Your task to perform on an android device: clear all cookies in the chrome app Image 0: 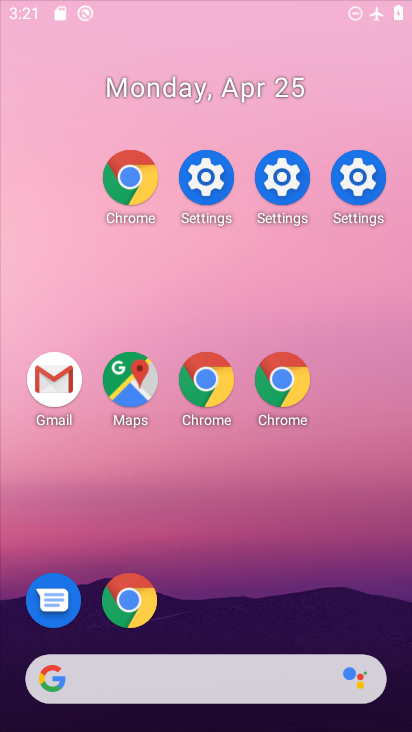
Step 0: click (171, 168)
Your task to perform on an android device: clear all cookies in the chrome app Image 1: 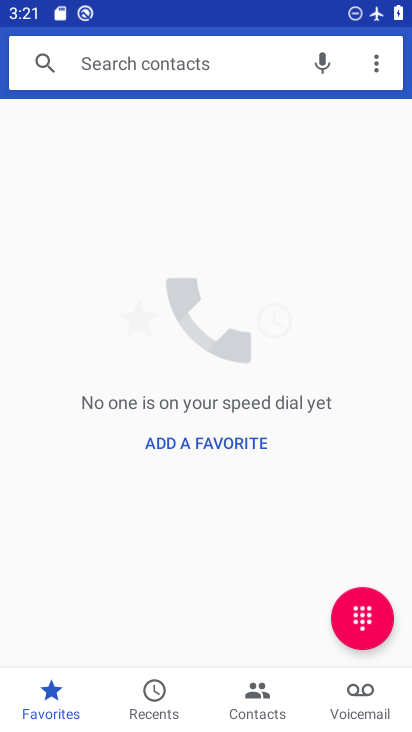
Step 1: press home button
Your task to perform on an android device: clear all cookies in the chrome app Image 2: 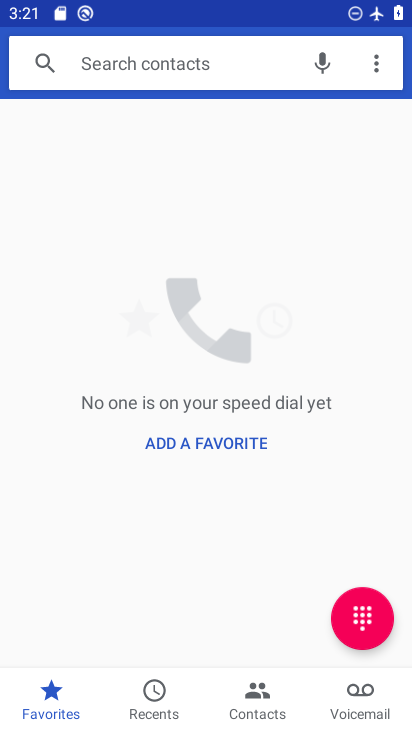
Step 2: press home button
Your task to perform on an android device: clear all cookies in the chrome app Image 3: 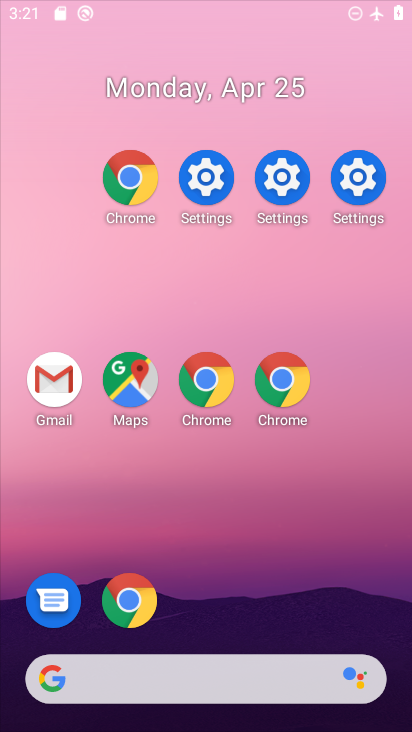
Step 3: press home button
Your task to perform on an android device: clear all cookies in the chrome app Image 4: 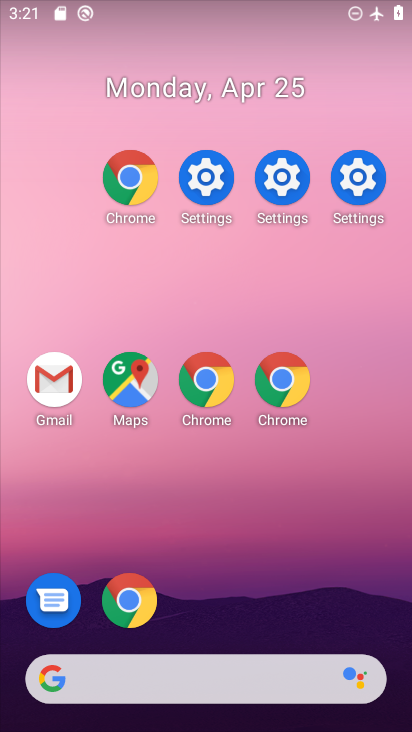
Step 4: drag from (218, 574) to (124, 176)
Your task to perform on an android device: clear all cookies in the chrome app Image 5: 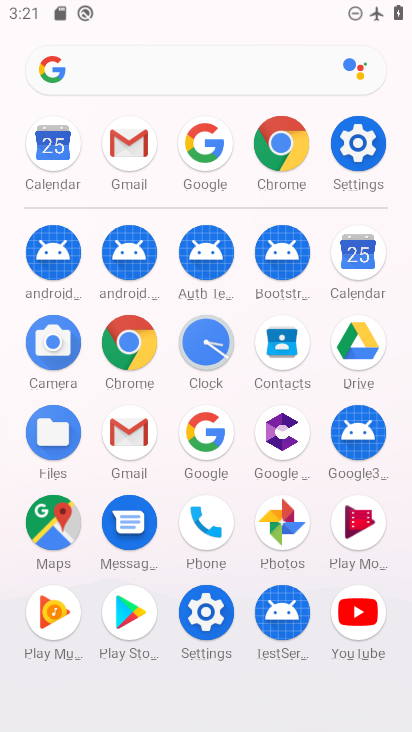
Step 5: click (282, 133)
Your task to perform on an android device: clear all cookies in the chrome app Image 6: 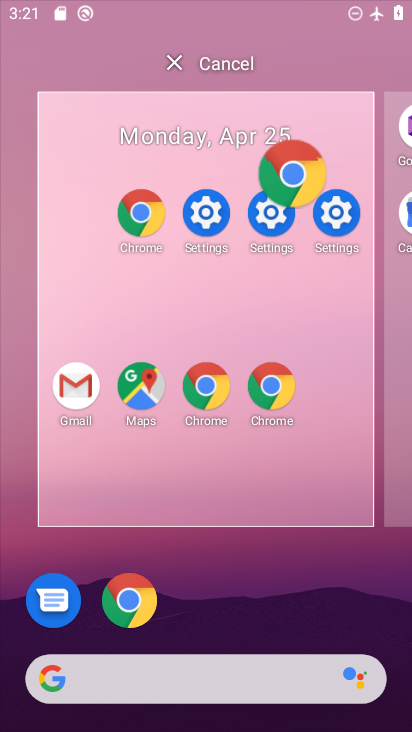
Step 6: click (290, 149)
Your task to perform on an android device: clear all cookies in the chrome app Image 7: 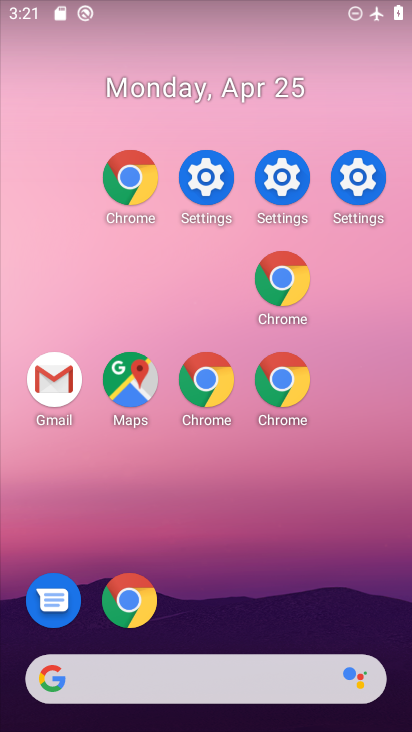
Step 7: click (289, 390)
Your task to perform on an android device: clear all cookies in the chrome app Image 8: 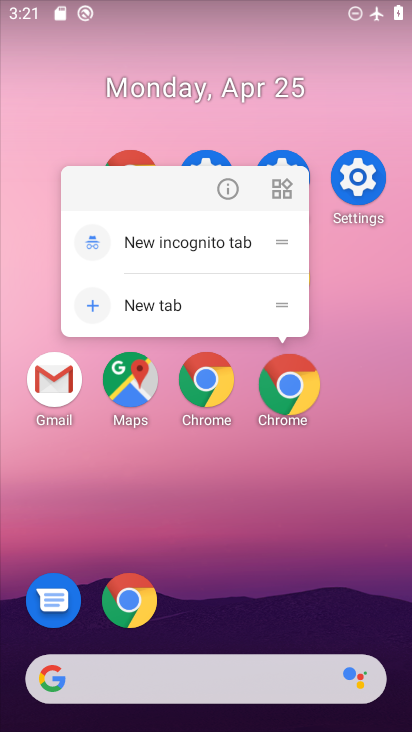
Step 8: drag from (299, 393) to (282, 332)
Your task to perform on an android device: clear all cookies in the chrome app Image 9: 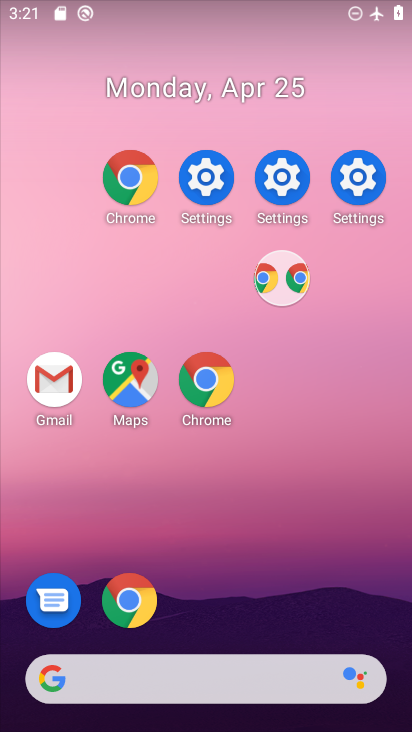
Step 9: click (210, 379)
Your task to perform on an android device: clear all cookies in the chrome app Image 10: 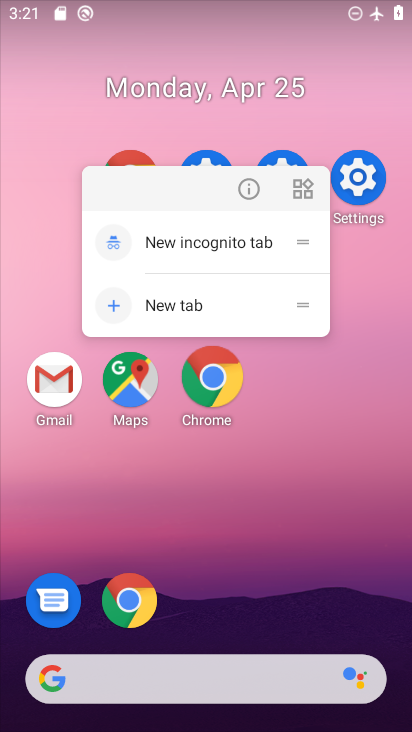
Step 10: click (199, 377)
Your task to perform on an android device: clear all cookies in the chrome app Image 11: 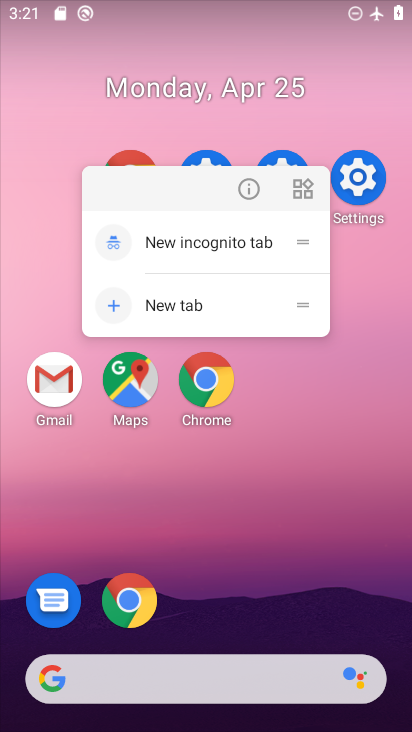
Step 11: click (213, 366)
Your task to perform on an android device: clear all cookies in the chrome app Image 12: 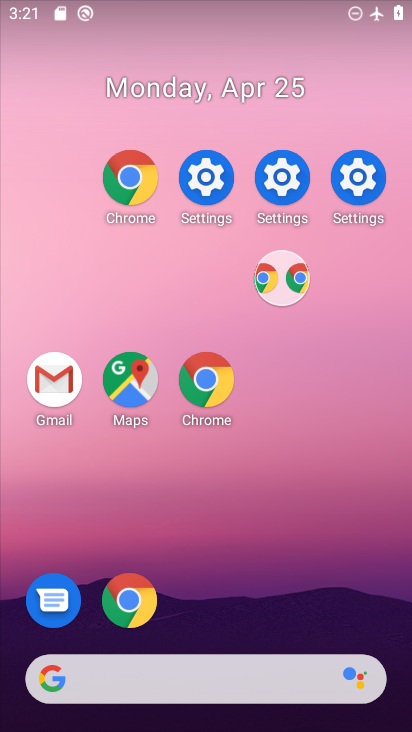
Step 12: click (199, 381)
Your task to perform on an android device: clear all cookies in the chrome app Image 13: 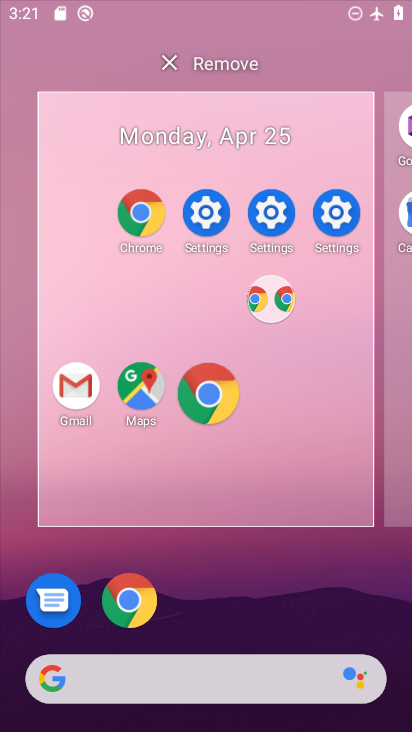
Step 13: click (203, 393)
Your task to perform on an android device: clear all cookies in the chrome app Image 14: 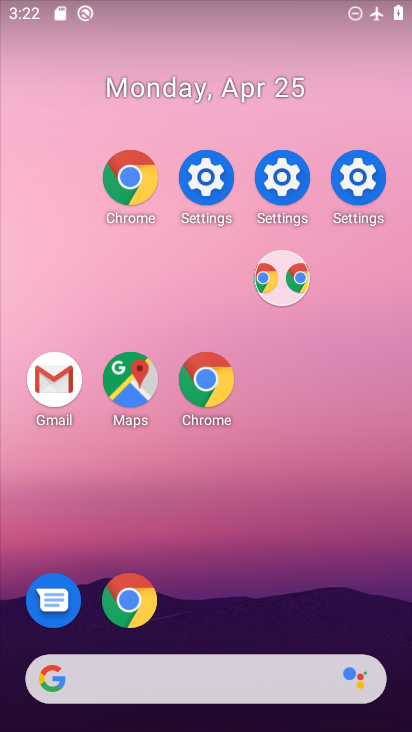
Step 14: click (213, 395)
Your task to perform on an android device: clear all cookies in the chrome app Image 15: 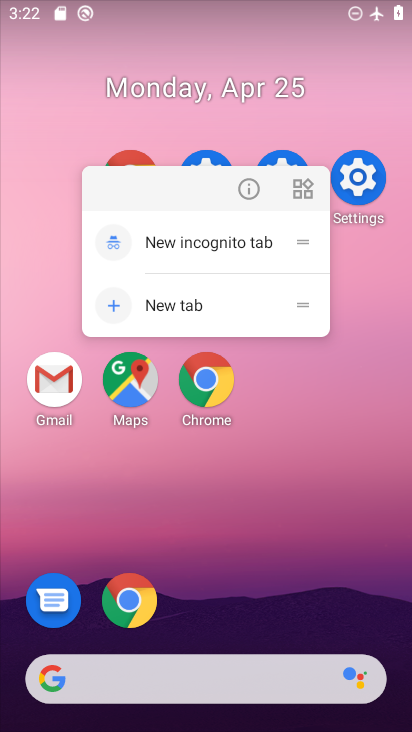
Step 15: drag from (307, 580) to (247, 25)
Your task to perform on an android device: clear all cookies in the chrome app Image 16: 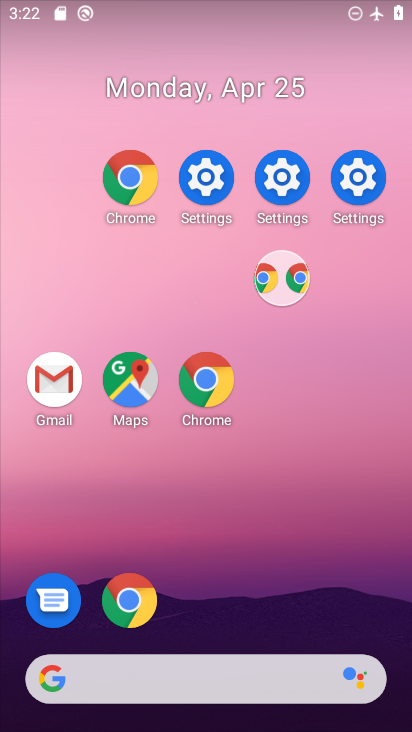
Step 16: drag from (243, 533) to (168, 32)
Your task to perform on an android device: clear all cookies in the chrome app Image 17: 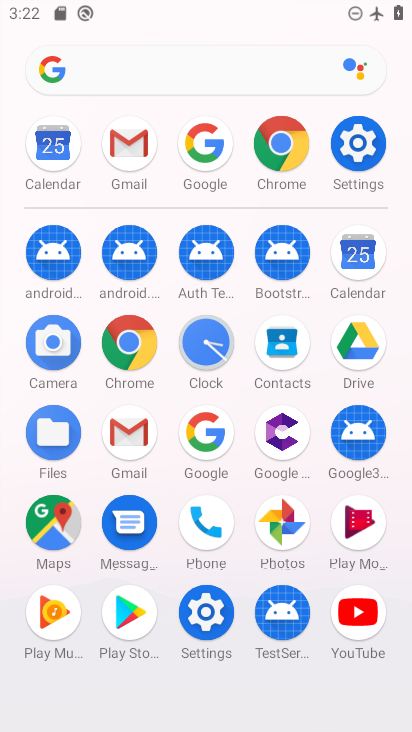
Step 17: click (277, 144)
Your task to perform on an android device: clear all cookies in the chrome app Image 18: 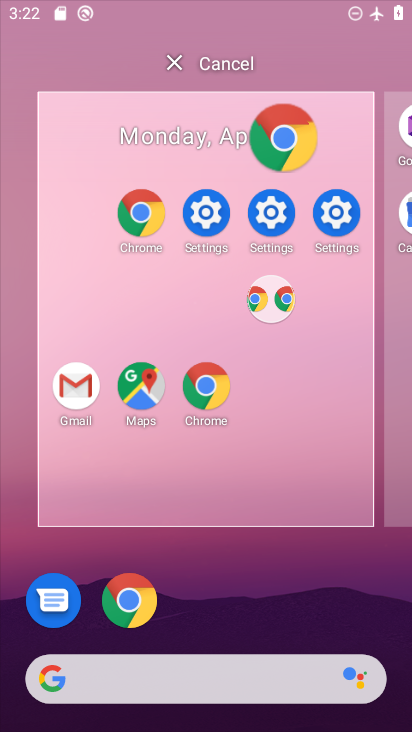
Step 18: click (276, 134)
Your task to perform on an android device: clear all cookies in the chrome app Image 19: 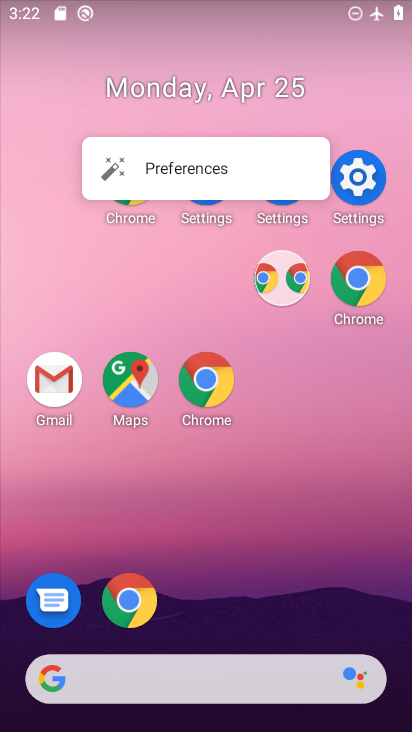
Step 19: drag from (201, 563) to (110, 13)
Your task to perform on an android device: clear all cookies in the chrome app Image 20: 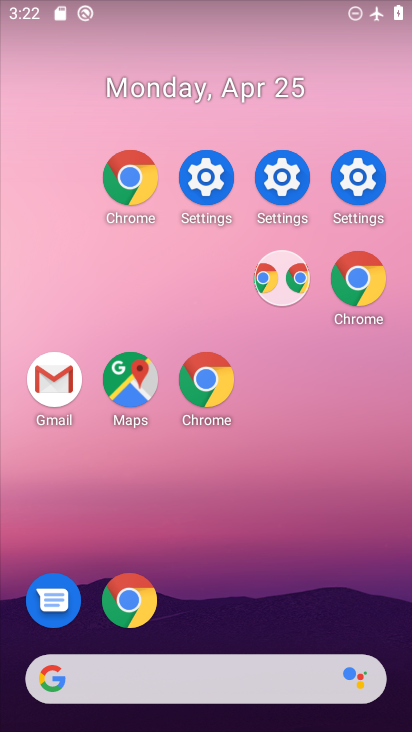
Step 20: drag from (140, 216) to (115, 0)
Your task to perform on an android device: clear all cookies in the chrome app Image 21: 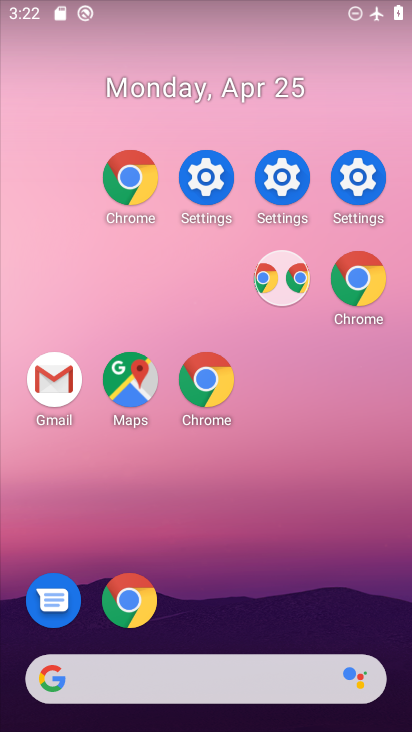
Step 21: drag from (264, 620) to (124, 11)
Your task to perform on an android device: clear all cookies in the chrome app Image 22: 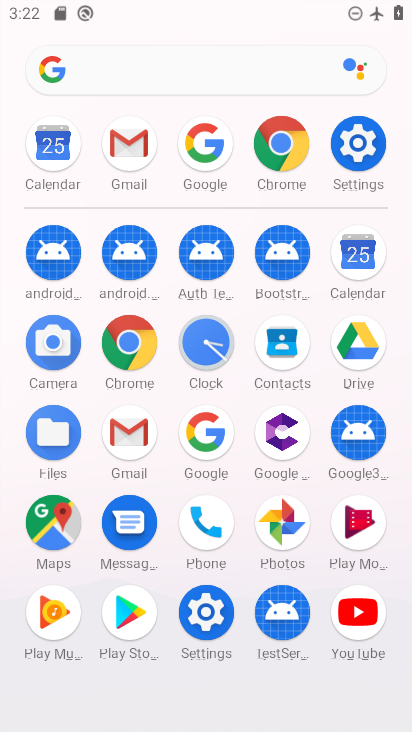
Step 22: click (125, 338)
Your task to perform on an android device: clear all cookies in the chrome app Image 23: 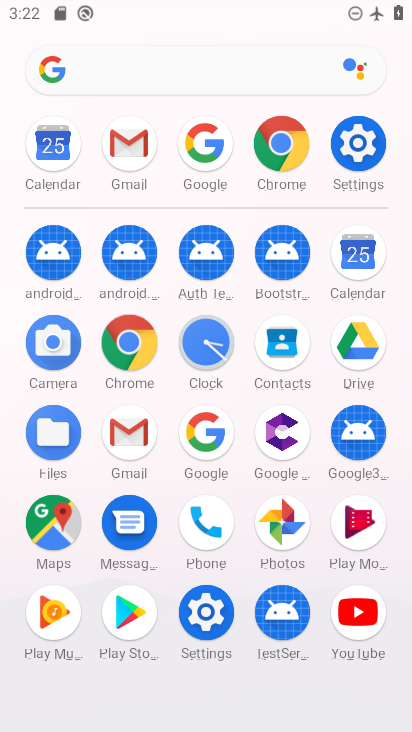
Step 23: click (126, 339)
Your task to perform on an android device: clear all cookies in the chrome app Image 24: 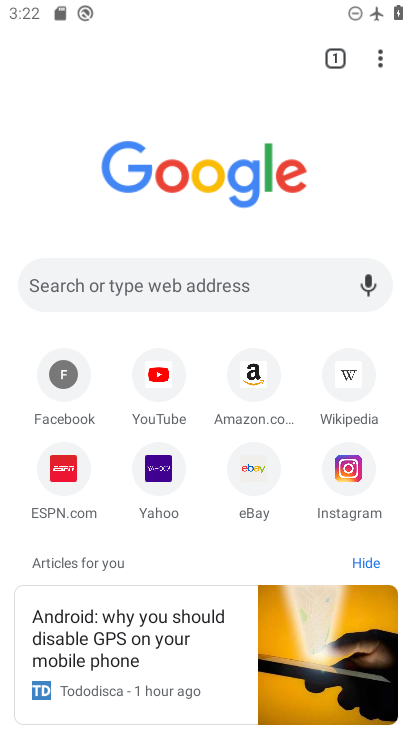
Step 24: click (379, 48)
Your task to perform on an android device: clear all cookies in the chrome app Image 25: 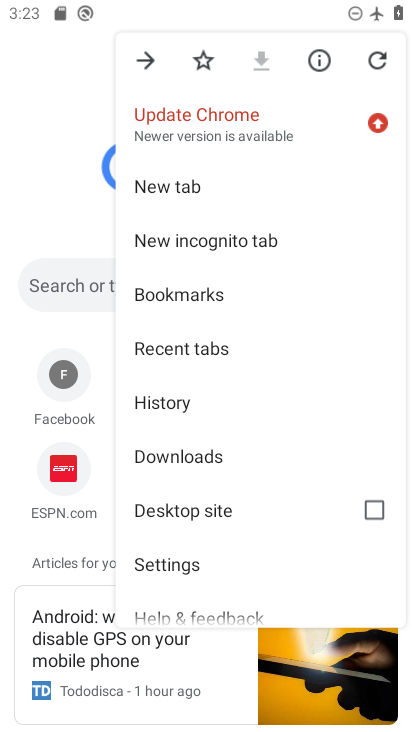
Step 25: click (65, 160)
Your task to perform on an android device: clear all cookies in the chrome app Image 26: 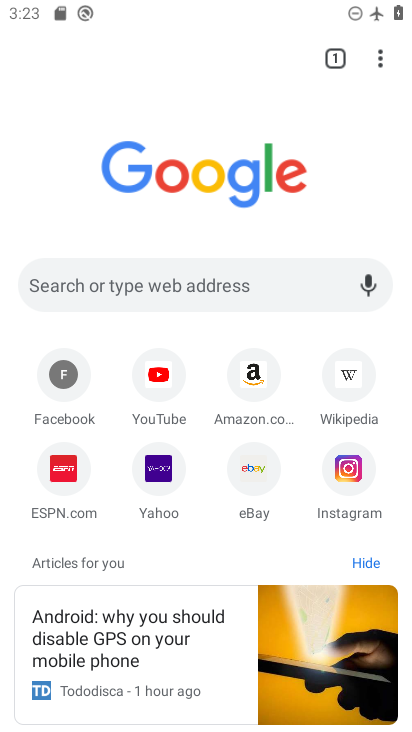
Step 26: click (378, 64)
Your task to perform on an android device: clear all cookies in the chrome app Image 27: 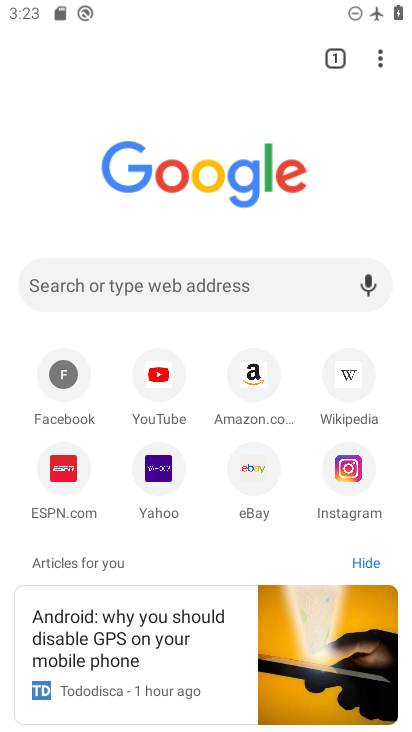
Step 27: click (384, 57)
Your task to perform on an android device: clear all cookies in the chrome app Image 28: 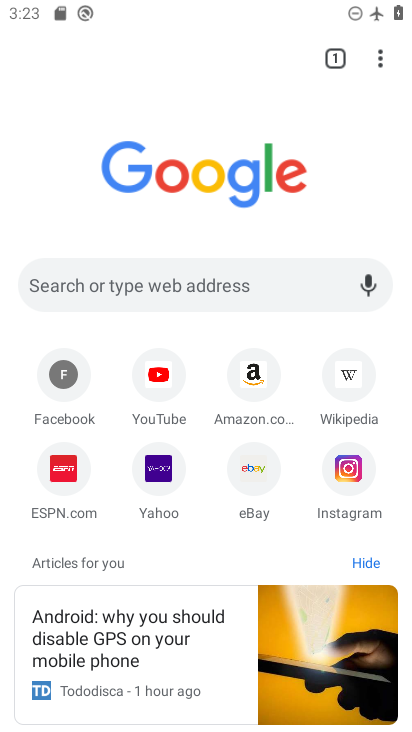
Step 28: click (375, 53)
Your task to perform on an android device: clear all cookies in the chrome app Image 29: 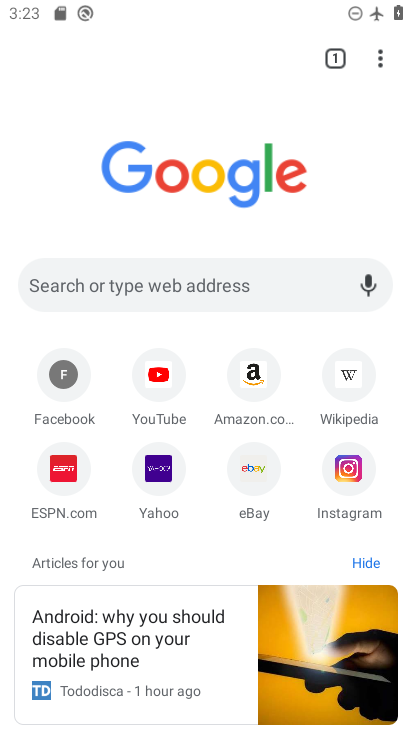
Step 29: click (379, 70)
Your task to perform on an android device: clear all cookies in the chrome app Image 30: 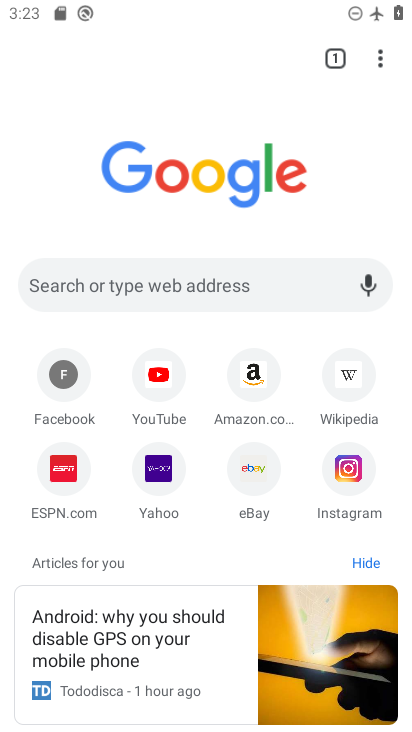
Step 30: click (371, 56)
Your task to perform on an android device: clear all cookies in the chrome app Image 31: 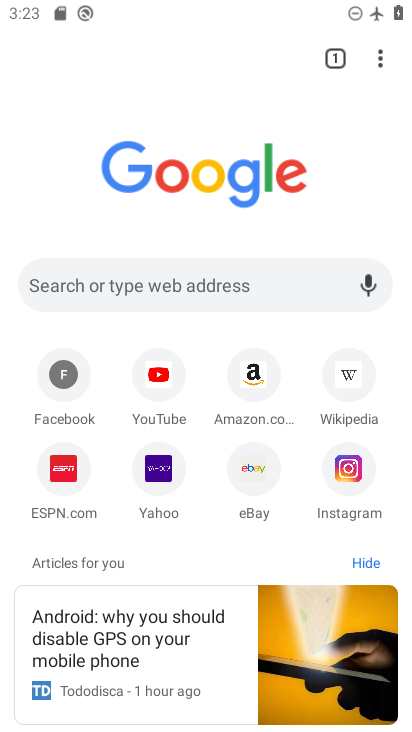
Step 31: drag from (379, 58) to (191, 598)
Your task to perform on an android device: clear all cookies in the chrome app Image 32: 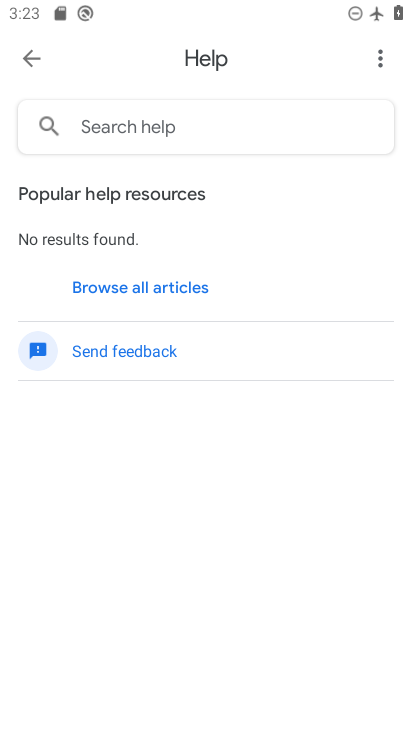
Step 32: click (378, 54)
Your task to perform on an android device: clear all cookies in the chrome app Image 33: 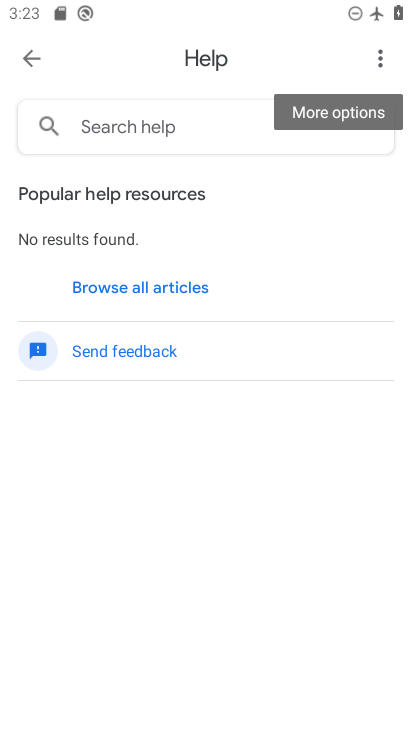
Step 33: click (26, 59)
Your task to perform on an android device: clear all cookies in the chrome app Image 34: 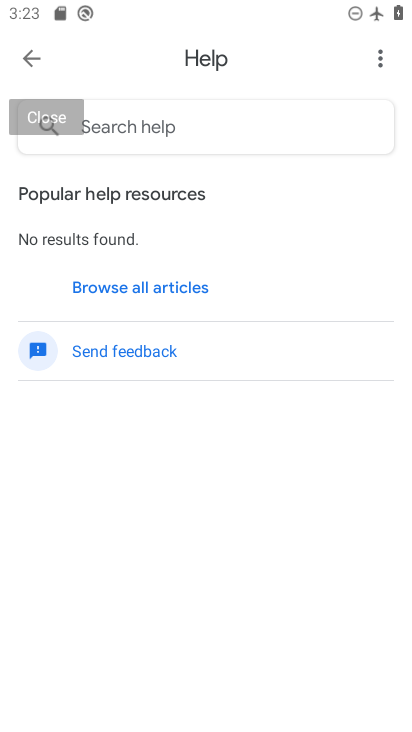
Step 34: click (377, 52)
Your task to perform on an android device: clear all cookies in the chrome app Image 35: 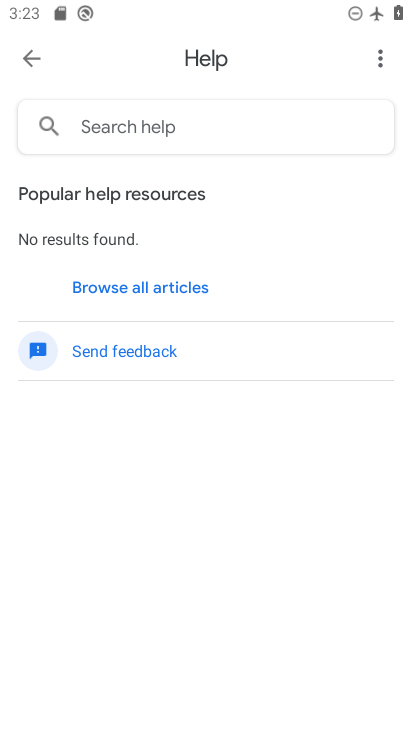
Step 35: click (22, 52)
Your task to perform on an android device: clear all cookies in the chrome app Image 36: 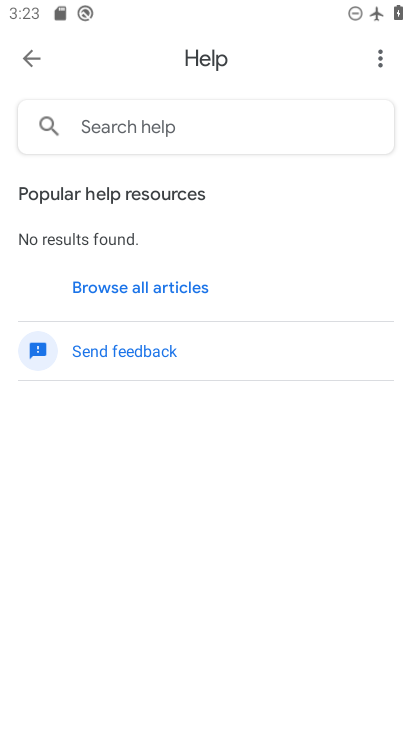
Step 36: click (25, 54)
Your task to perform on an android device: clear all cookies in the chrome app Image 37: 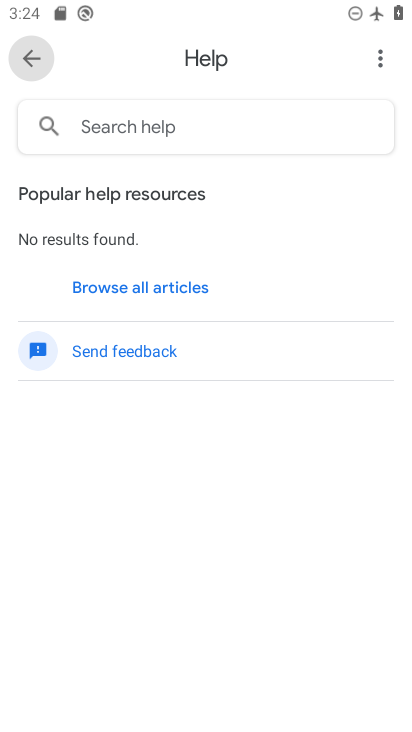
Step 37: click (30, 54)
Your task to perform on an android device: clear all cookies in the chrome app Image 38: 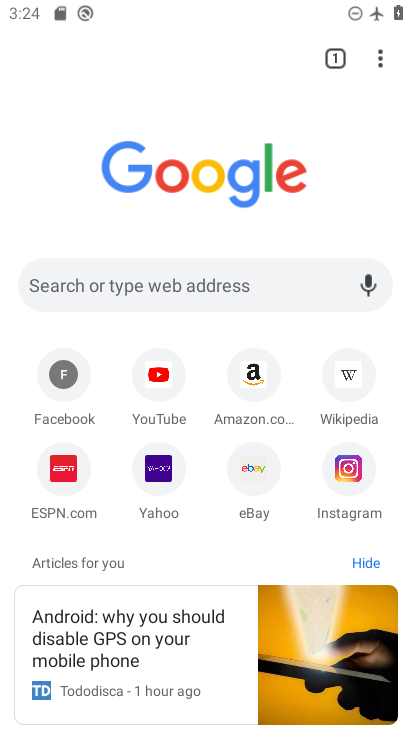
Step 38: drag from (376, 50) to (176, 545)
Your task to perform on an android device: clear all cookies in the chrome app Image 39: 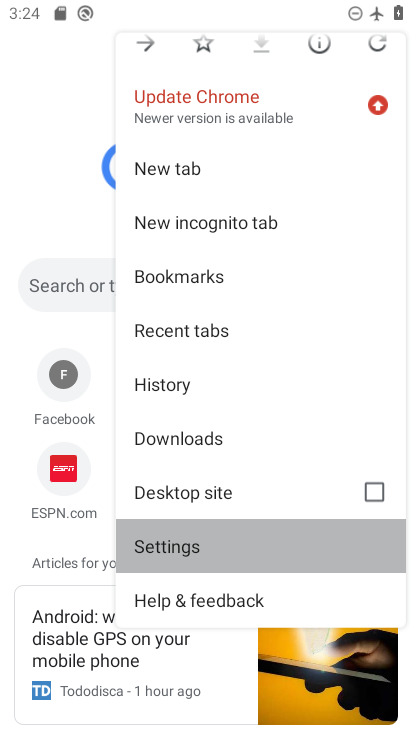
Step 39: click (166, 540)
Your task to perform on an android device: clear all cookies in the chrome app Image 40: 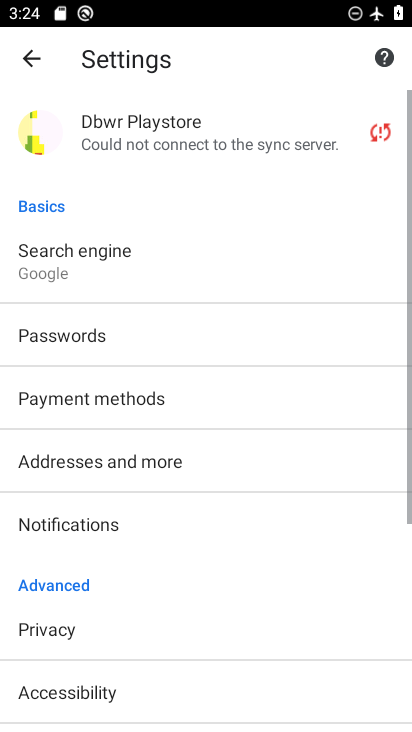
Step 40: drag from (129, 568) to (123, 152)
Your task to perform on an android device: clear all cookies in the chrome app Image 41: 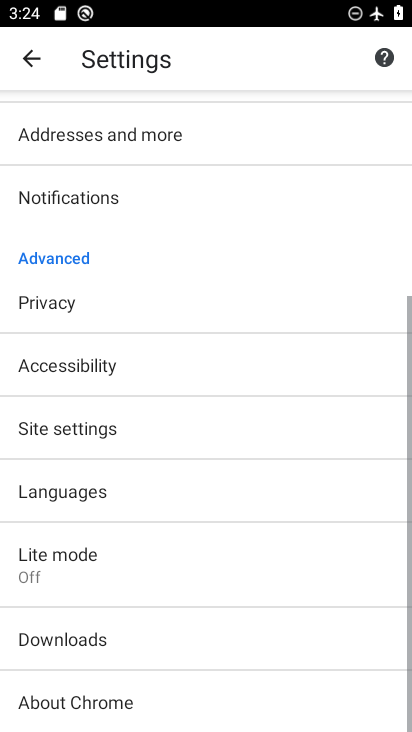
Step 41: drag from (123, 574) to (92, 54)
Your task to perform on an android device: clear all cookies in the chrome app Image 42: 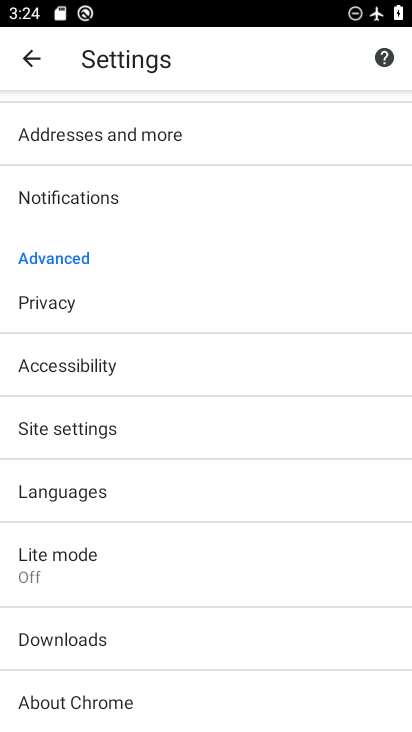
Step 42: click (55, 436)
Your task to perform on an android device: clear all cookies in the chrome app Image 43: 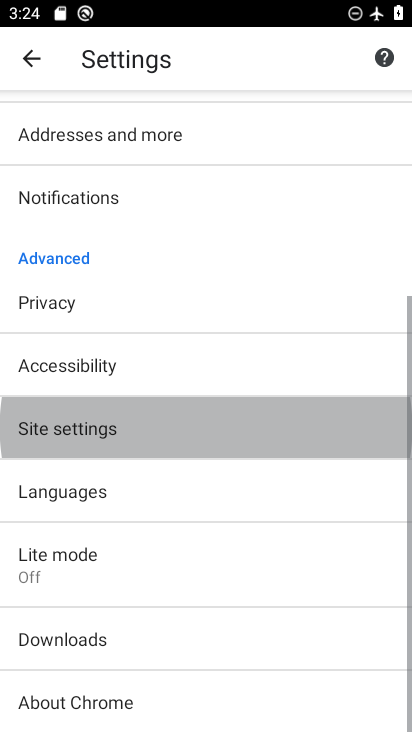
Step 43: click (56, 437)
Your task to perform on an android device: clear all cookies in the chrome app Image 44: 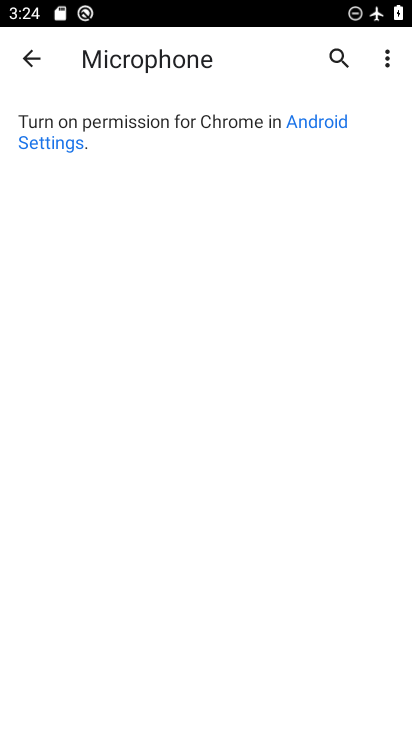
Step 44: click (20, 56)
Your task to perform on an android device: clear all cookies in the chrome app Image 45: 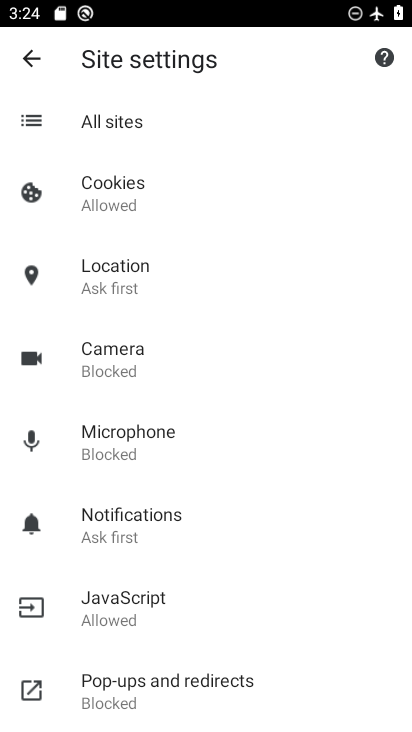
Step 45: click (105, 206)
Your task to perform on an android device: clear all cookies in the chrome app Image 46: 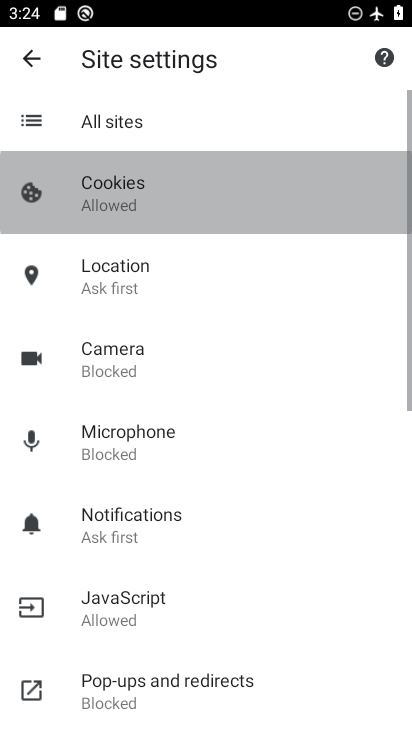
Step 46: click (102, 191)
Your task to perform on an android device: clear all cookies in the chrome app Image 47: 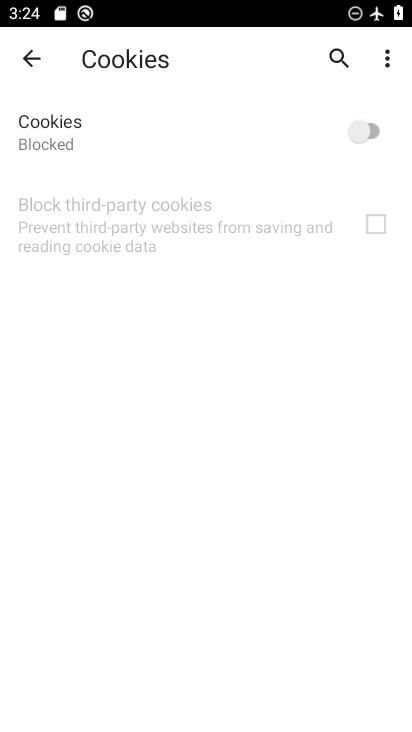
Step 47: click (360, 130)
Your task to perform on an android device: clear all cookies in the chrome app Image 48: 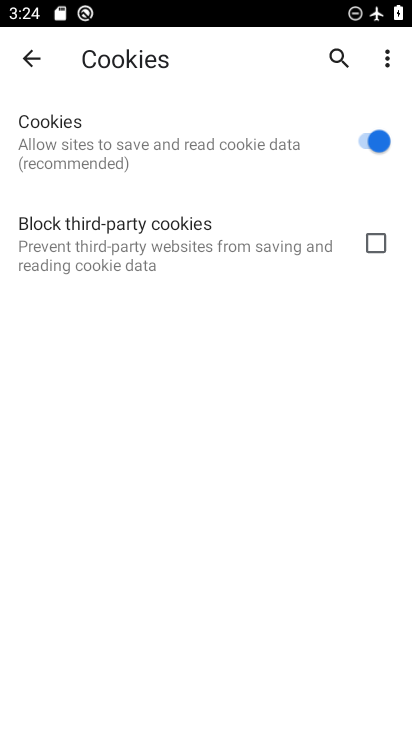
Step 48: click (368, 125)
Your task to perform on an android device: clear all cookies in the chrome app Image 49: 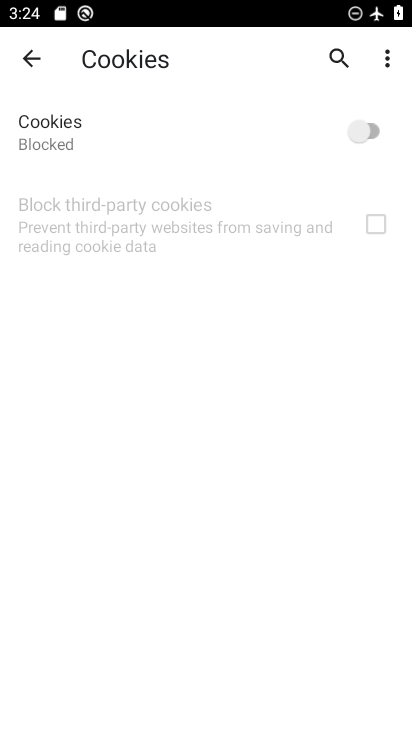
Step 49: task complete